Your task to perform on an android device: turn notification dots off Image 0: 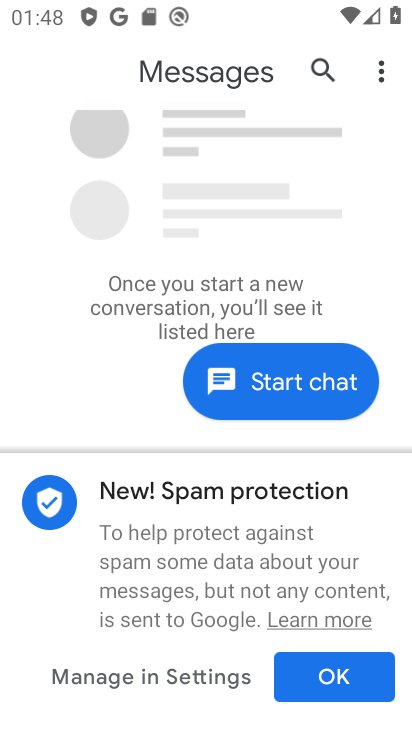
Step 0: press home button
Your task to perform on an android device: turn notification dots off Image 1: 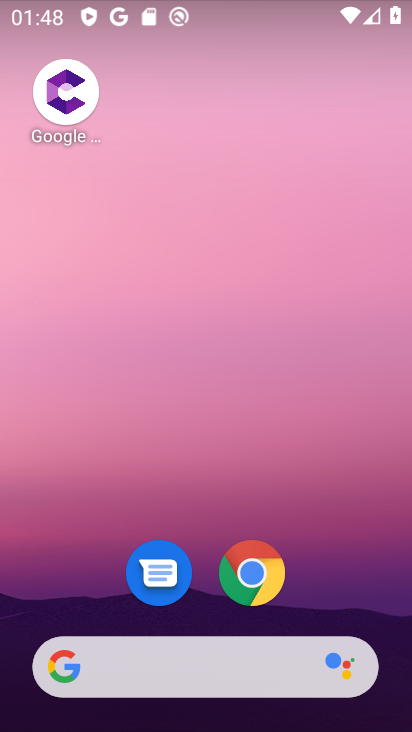
Step 1: drag from (272, 608) to (325, 334)
Your task to perform on an android device: turn notification dots off Image 2: 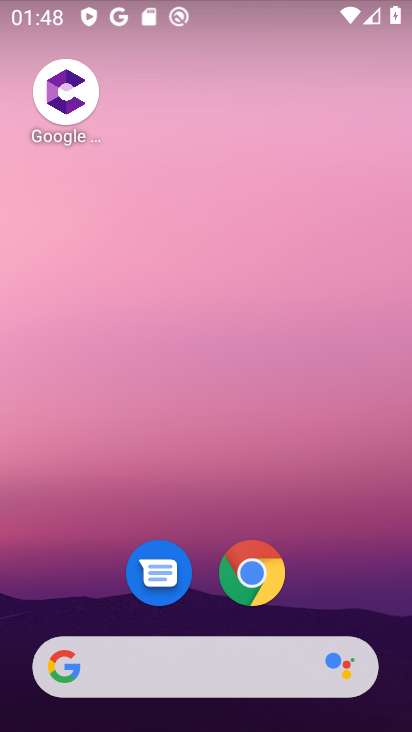
Step 2: drag from (227, 579) to (317, 193)
Your task to perform on an android device: turn notification dots off Image 3: 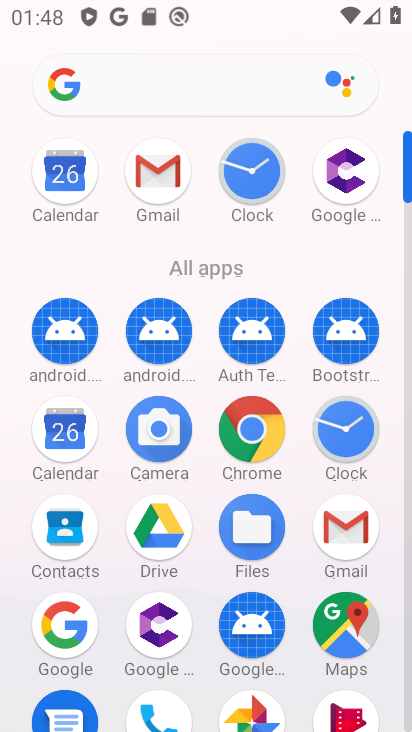
Step 3: drag from (303, 578) to (343, 252)
Your task to perform on an android device: turn notification dots off Image 4: 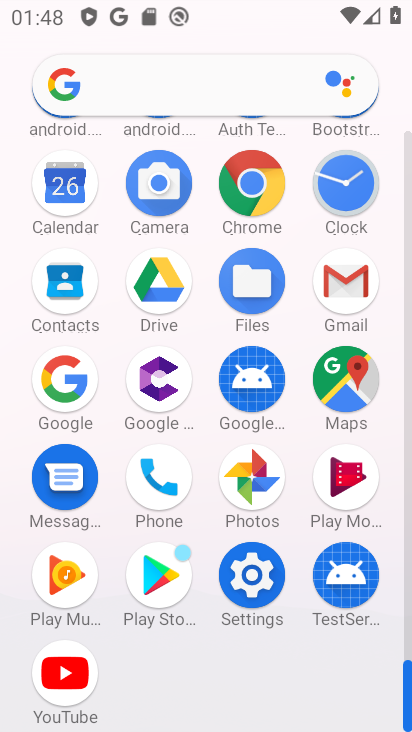
Step 4: click (240, 582)
Your task to perform on an android device: turn notification dots off Image 5: 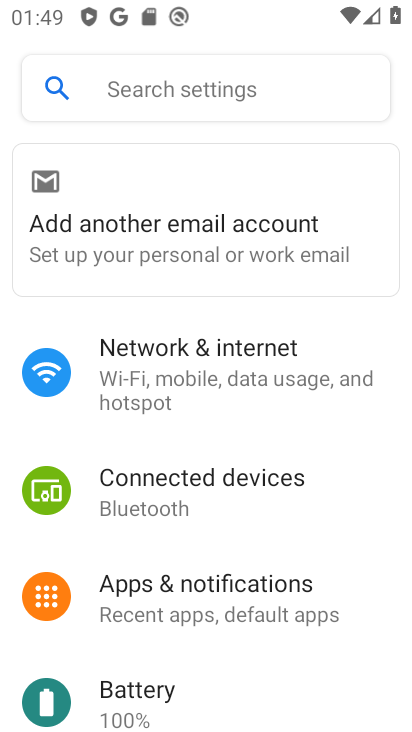
Step 5: click (218, 82)
Your task to perform on an android device: turn notification dots off Image 6: 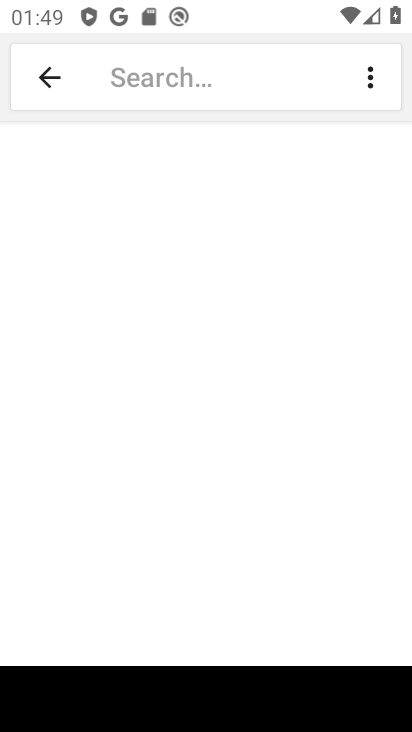
Step 6: click (177, 76)
Your task to perform on an android device: turn notification dots off Image 7: 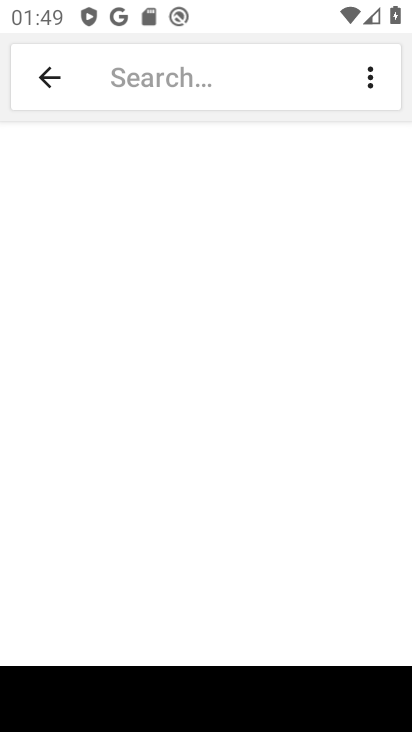
Step 7: type "notification dots"
Your task to perform on an android device: turn notification dots off Image 8: 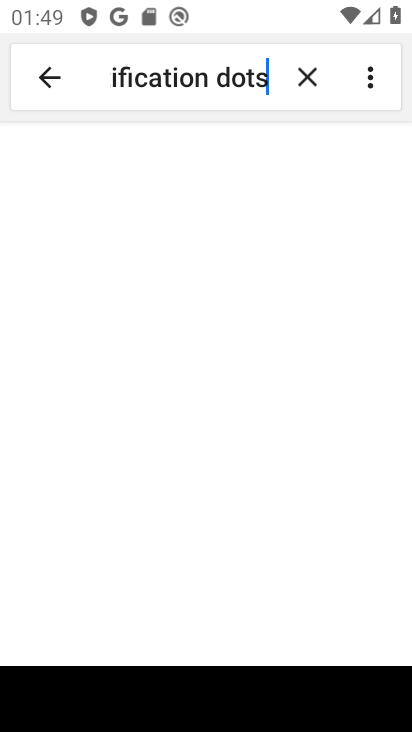
Step 8: drag from (255, 189) to (280, 296)
Your task to perform on an android device: turn notification dots off Image 9: 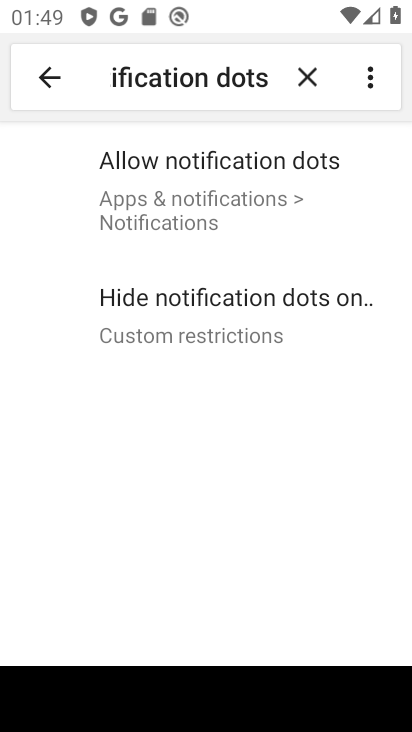
Step 9: click (235, 195)
Your task to perform on an android device: turn notification dots off Image 10: 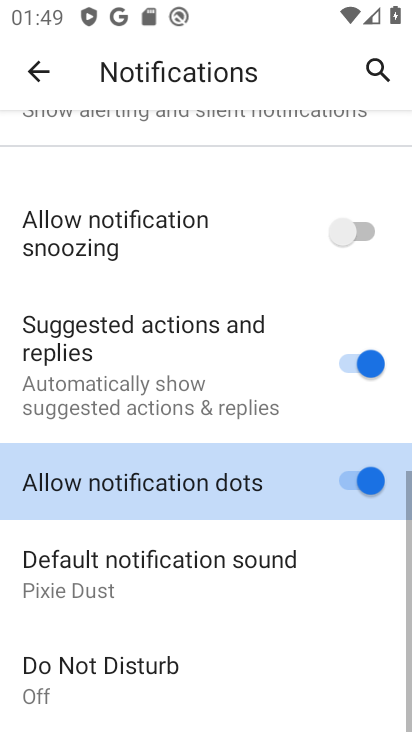
Step 10: click (362, 485)
Your task to perform on an android device: turn notification dots off Image 11: 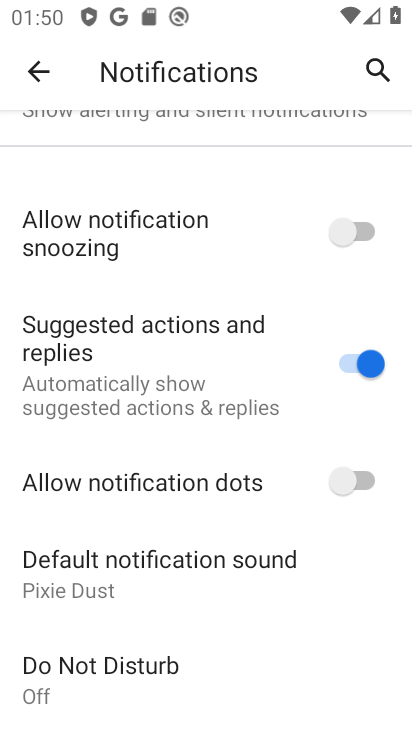
Step 11: task complete